Your task to perform on an android device: Open the Play Movies app and select the watchlist tab. Image 0: 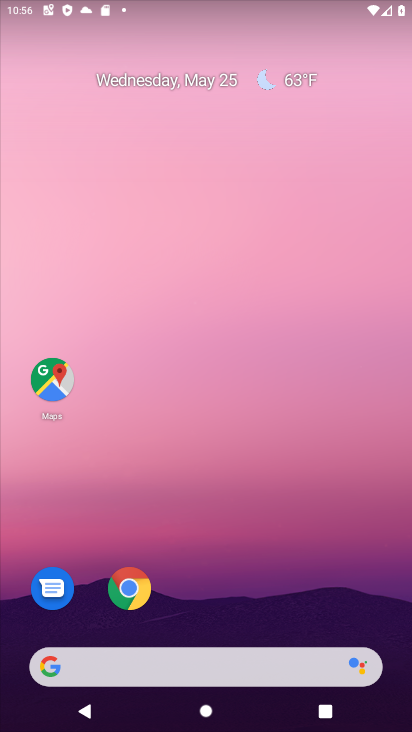
Step 0: drag from (236, 615) to (247, 70)
Your task to perform on an android device: Open the Play Movies app and select the watchlist tab. Image 1: 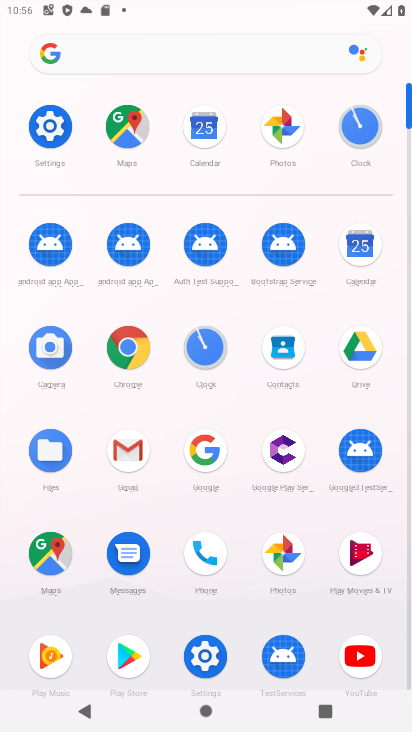
Step 1: click (350, 552)
Your task to perform on an android device: Open the Play Movies app and select the watchlist tab. Image 2: 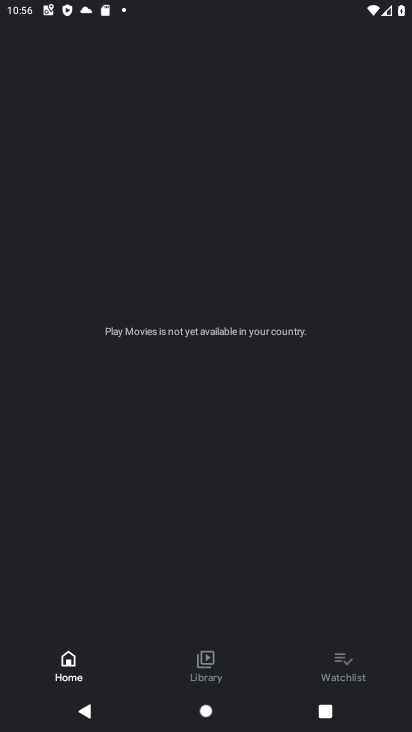
Step 2: click (343, 668)
Your task to perform on an android device: Open the Play Movies app and select the watchlist tab. Image 3: 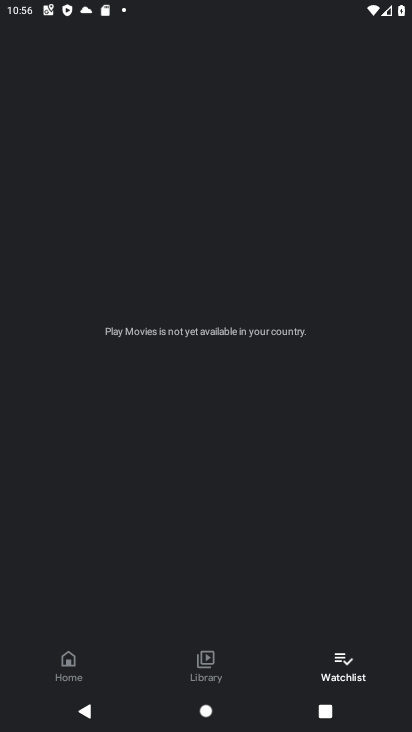
Step 3: task complete